Your task to perform on an android device: Go to wifi settings Image 0: 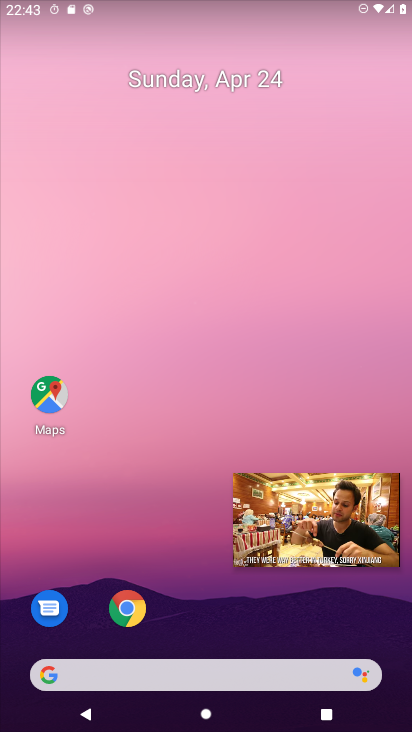
Step 0: drag from (152, 481) to (249, 24)
Your task to perform on an android device: Go to wifi settings Image 1: 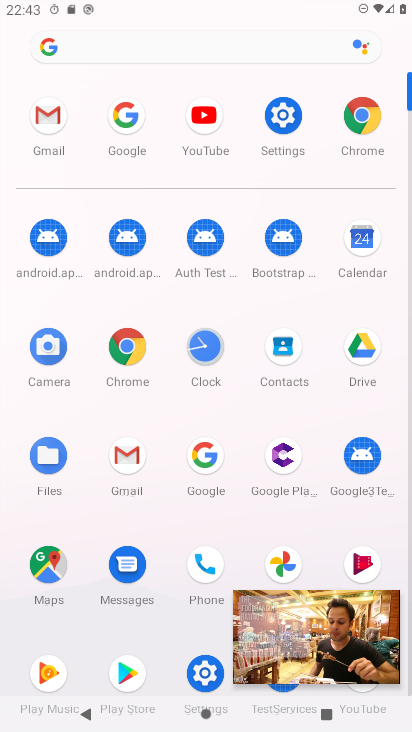
Step 1: click (281, 106)
Your task to perform on an android device: Go to wifi settings Image 2: 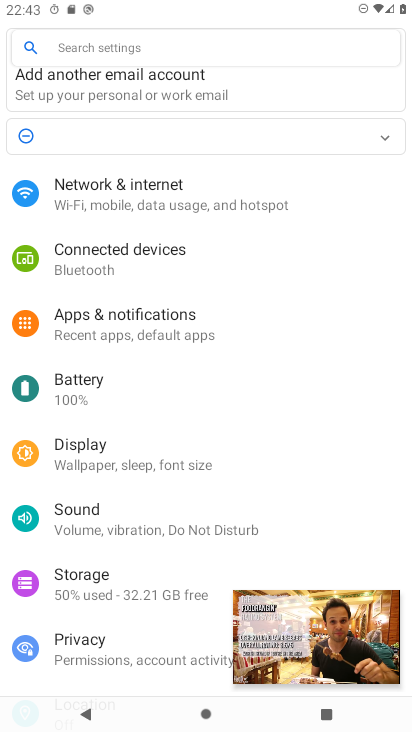
Step 2: click (197, 199)
Your task to perform on an android device: Go to wifi settings Image 3: 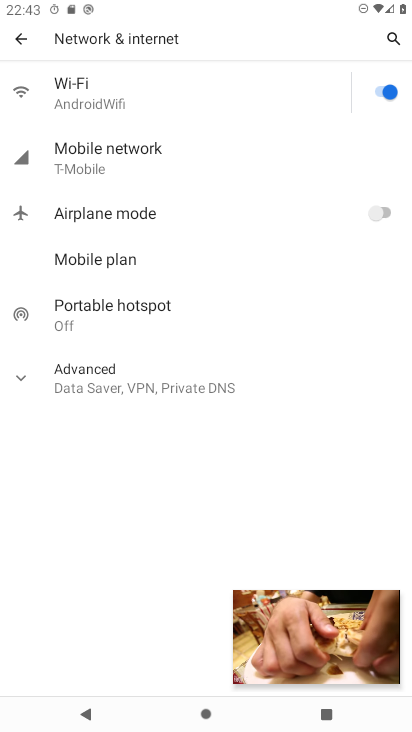
Step 3: click (174, 88)
Your task to perform on an android device: Go to wifi settings Image 4: 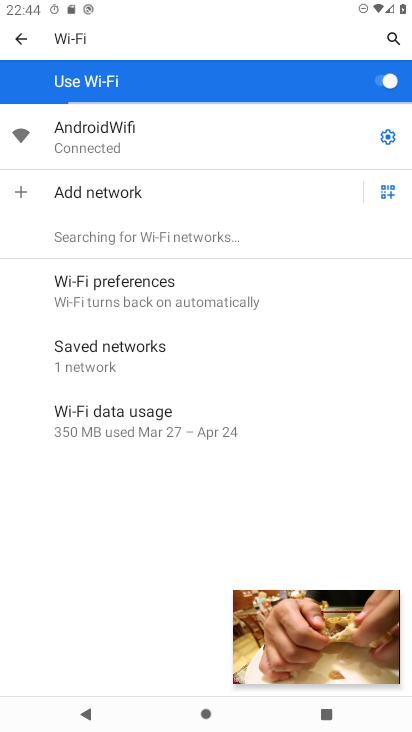
Step 4: task complete